Your task to perform on an android device: Go to internet settings Image 0: 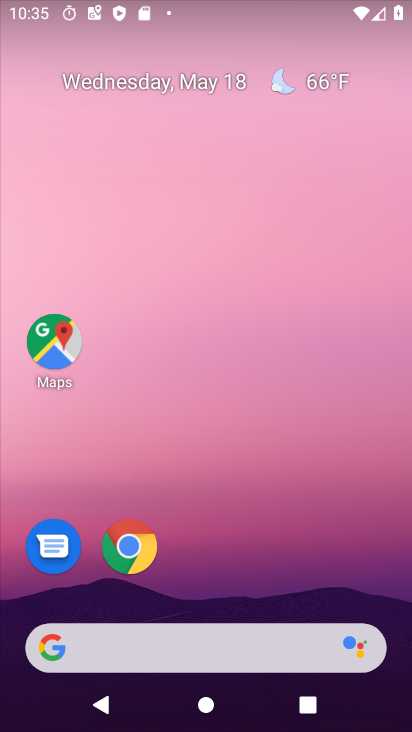
Step 0: drag from (226, 14) to (254, 493)
Your task to perform on an android device: Go to internet settings Image 1: 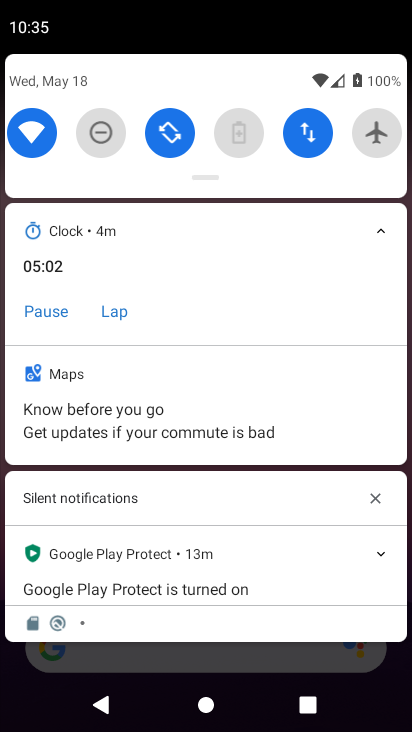
Step 1: click (309, 129)
Your task to perform on an android device: Go to internet settings Image 2: 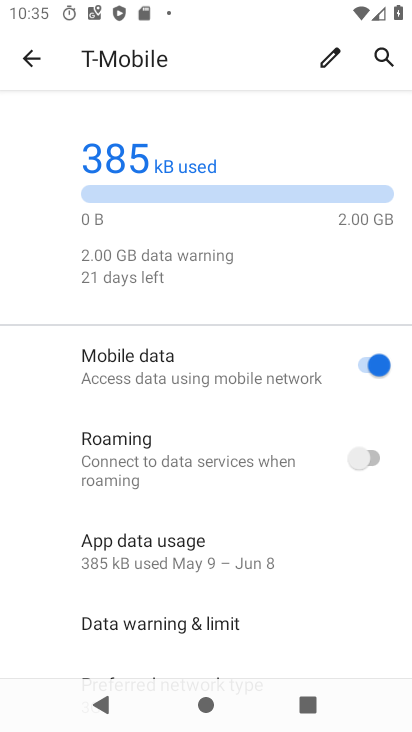
Step 2: task complete